Your task to perform on an android device: change the upload size in google photos Image 0: 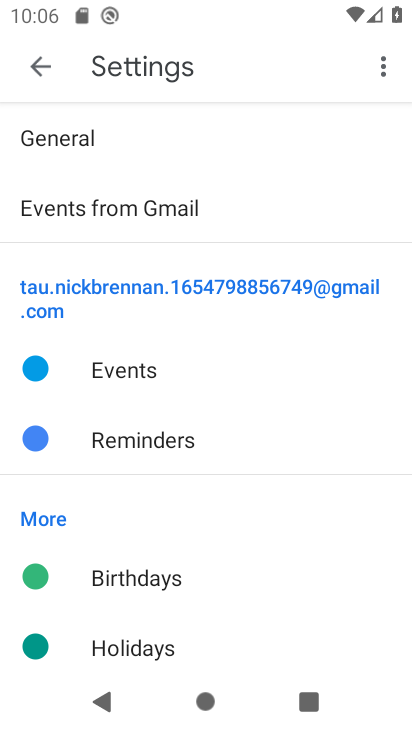
Step 0: press home button
Your task to perform on an android device: change the upload size in google photos Image 1: 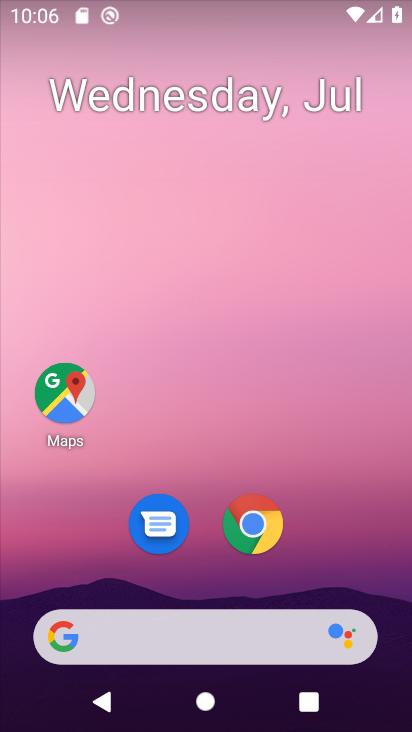
Step 1: drag from (335, 565) to (323, 31)
Your task to perform on an android device: change the upload size in google photos Image 2: 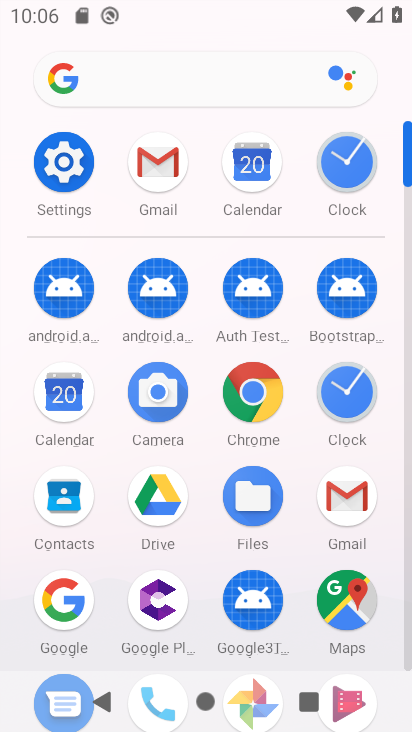
Step 2: drag from (302, 530) to (296, 246)
Your task to perform on an android device: change the upload size in google photos Image 3: 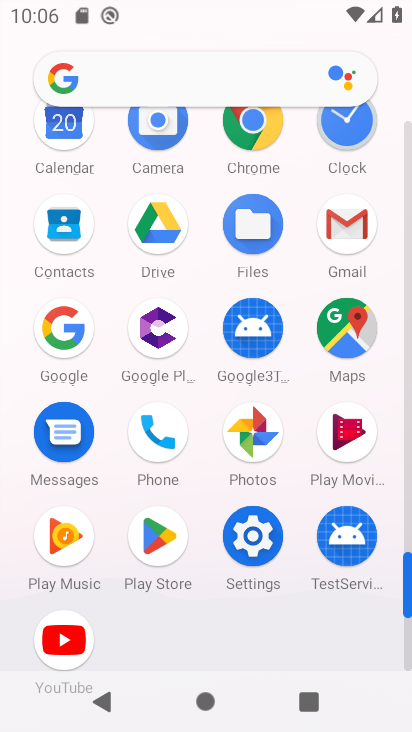
Step 3: click (263, 425)
Your task to perform on an android device: change the upload size in google photos Image 4: 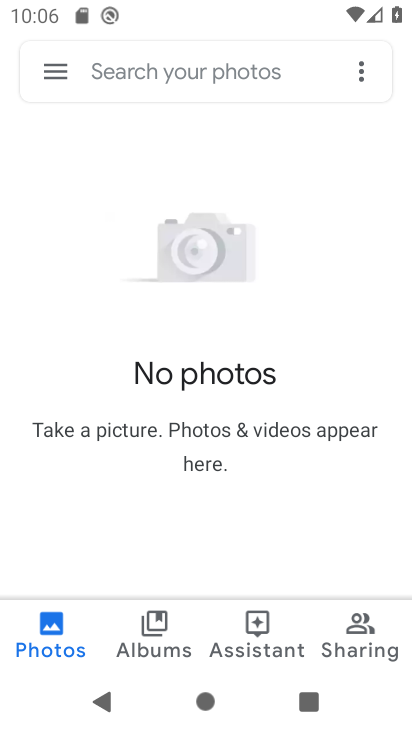
Step 4: click (50, 66)
Your task to perform on an android device: change the upload size in google photos Image 5: 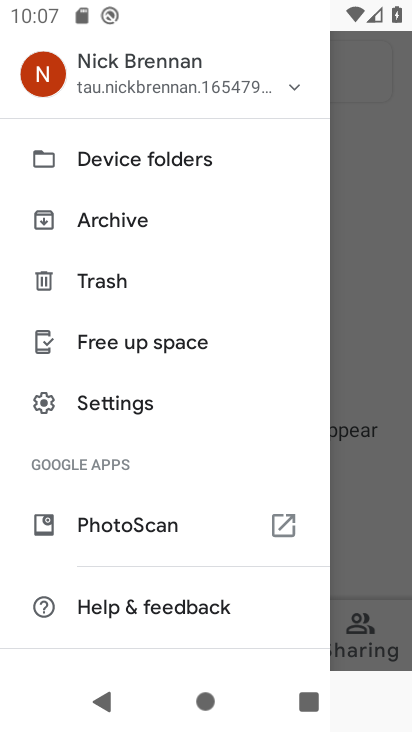
Step 5: drag from (211, 393) to (216, 156)
Your task to perform on an android device: change the upload size in google photos Image 6: 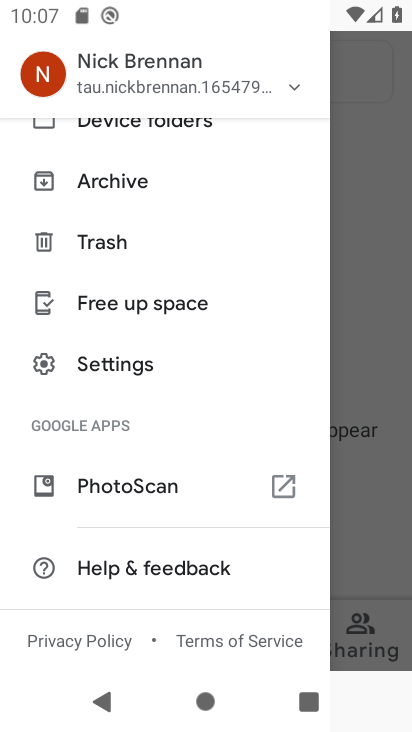
Step 6: drag from (190, 191) to (192, 443)
Your task to perform on an android device: change the upload size in google photos Image 7: 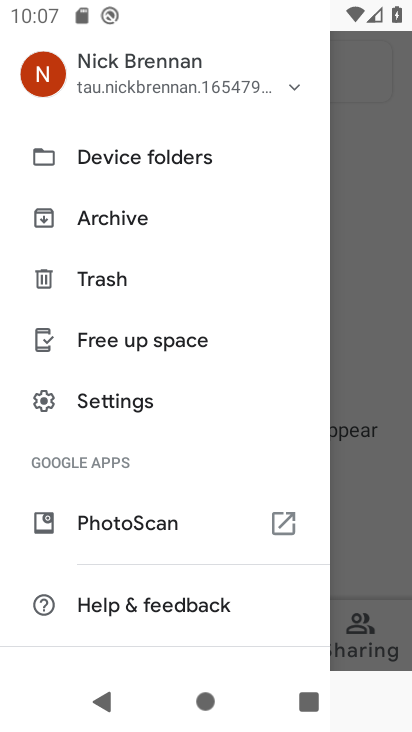
Step 7: click (136, 400)
Your task to perform on an android device: change the upload size in google photos Image 8: 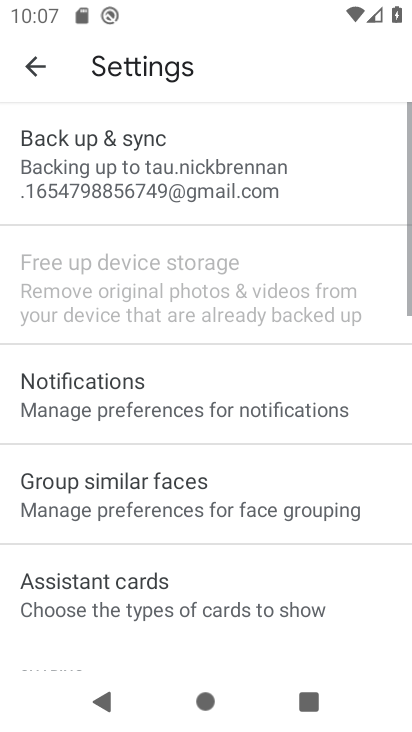
Step 8: click (158, 160)
Your task to perform on an android device: change the upload size in google photos Image 9: 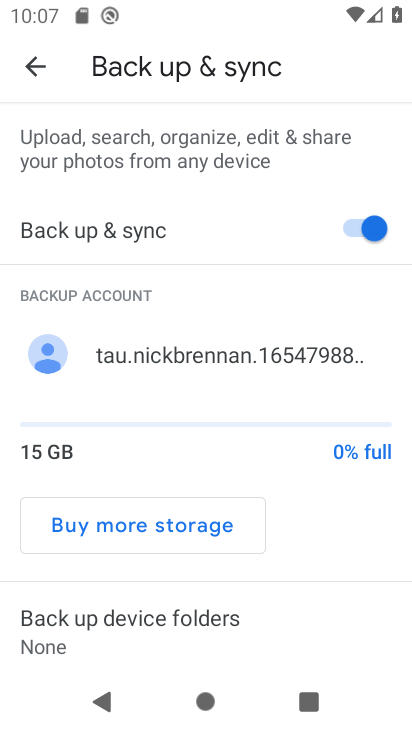
Step 9: drag from (196, 543) to (285, 172)
Your task to perform on an android device: change the upload size in google photos Image 10: 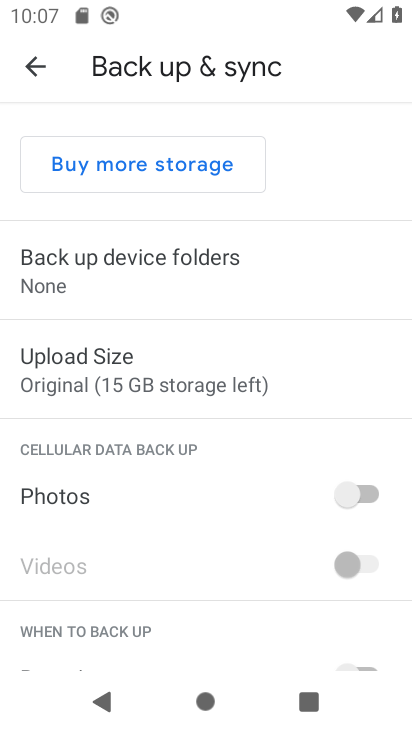
Step 10: click (144, 365)
Your task to perform on an android device: change the upload size in google photos Image 11: 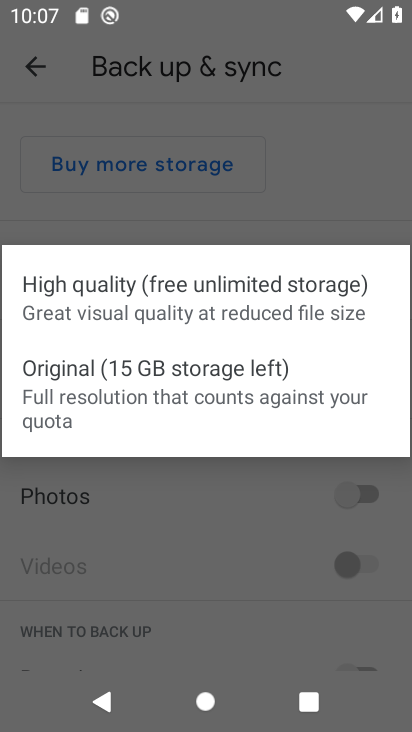
Step 11: click (147, 289)
Your task to perform on an android device: change the upload size in google photos Image 12: 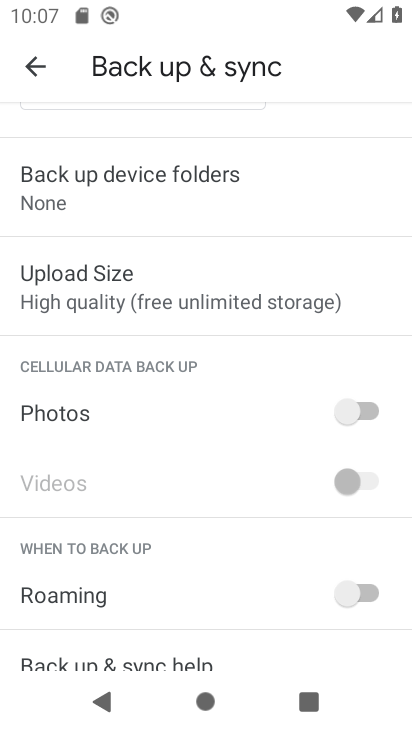
Step 12: task complete